Your task to perform on an android device: Open calendar and show me the third week of next month Image 0: 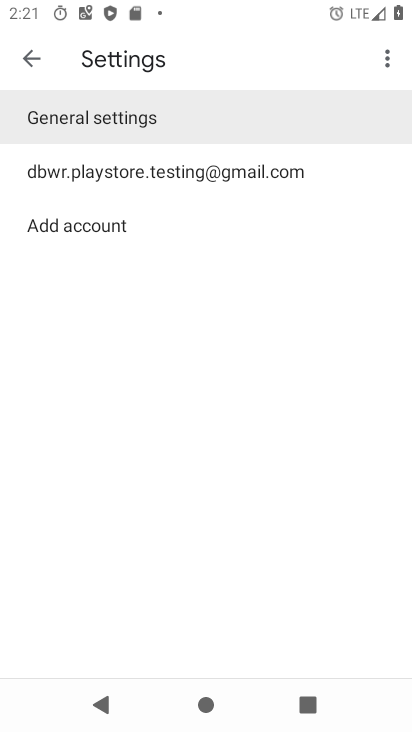
Step 0: press home button
Your task to perform on an android device: Open calendar and show me the third week of next month Image 1: 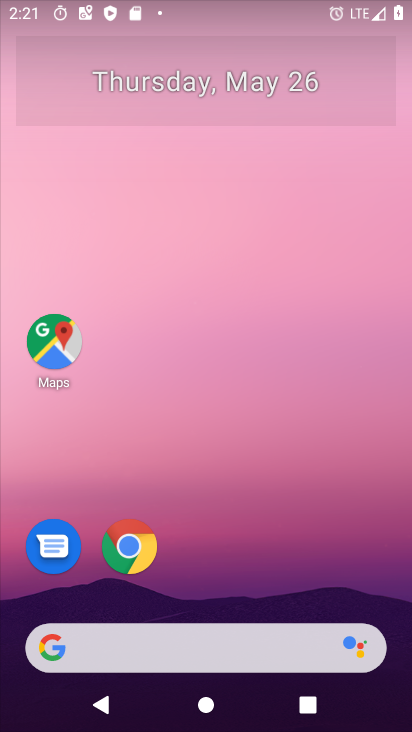
Step 1: drag from (218, 586) to (253, 123)
Your task to perform on an android device: Open calendar and show me the third week of next month Image 2: 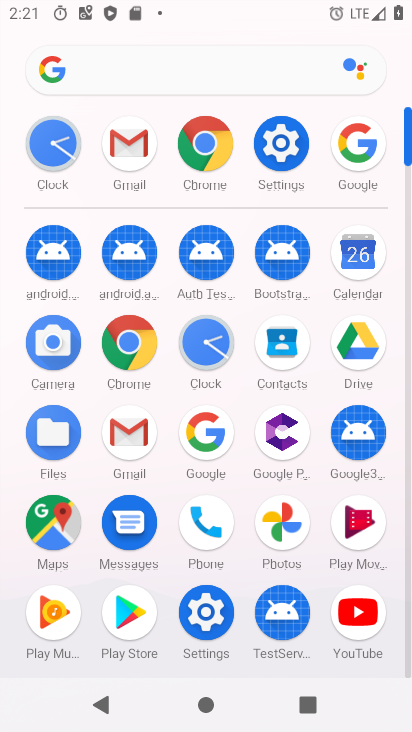
Step 2: click (356, 247)
Your task to perform on an android device: Open calendar and show me the third week of next month Image 3: 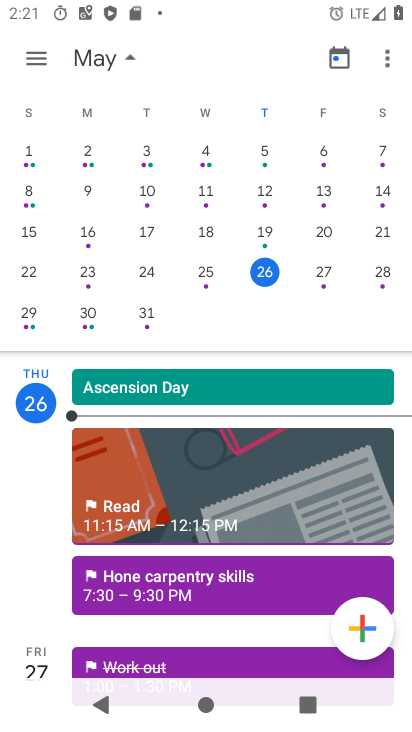
Step 3: drag from (382, 323) to (5, 285)
Your task to perform on an android device: Open calendar and show me the third week of next month Image 4: 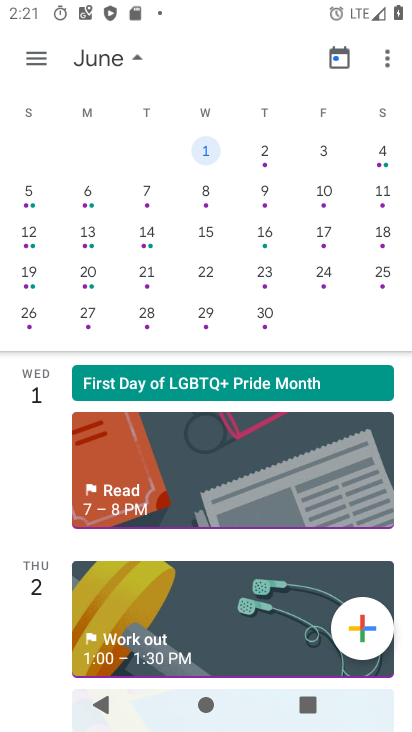
Step 4: click (207, 236)
Your task to perform on an android device: Open calendar and show me the third week of next month Image 5: 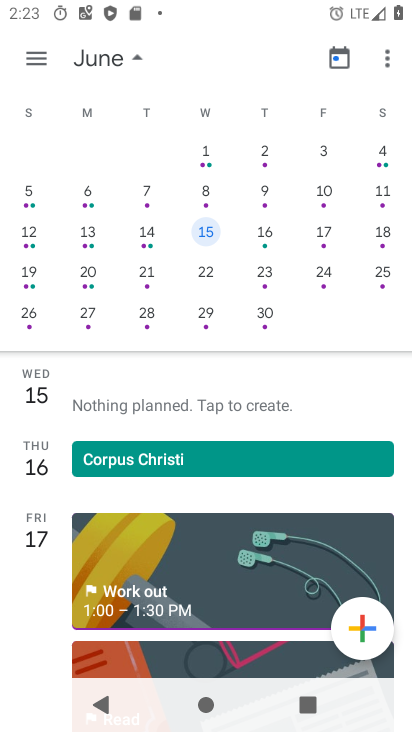
Step 5: task complete